Your task to perform on an android device: see tabs open on other devices in the chrome app Image 0: 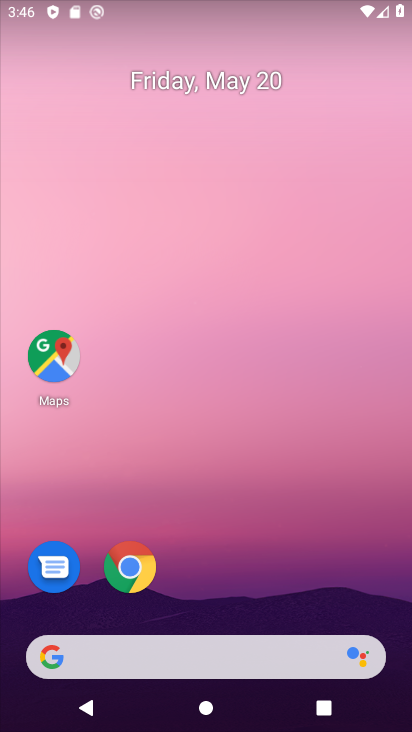
Step 0: click (131, 571)
Your task to perform on an android device: see tabs open on other devices in the chrome app Image 1: 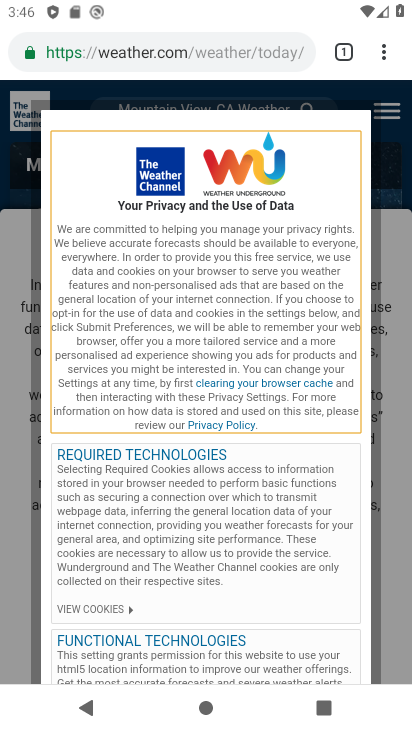
Step 1: click (396, 53)
Your task to perform on an android device: see tabs open on other devices in the chrome app Image 2: 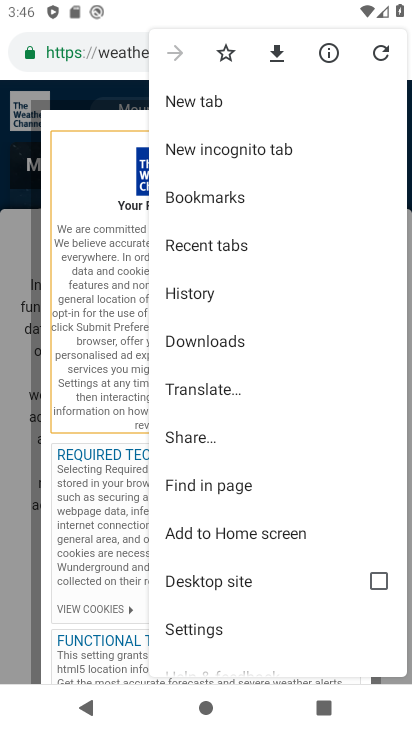
Step 2: click (251, 254)
Your task to perform on an android device: see tabs open on other devices in the chrome app Image 3: 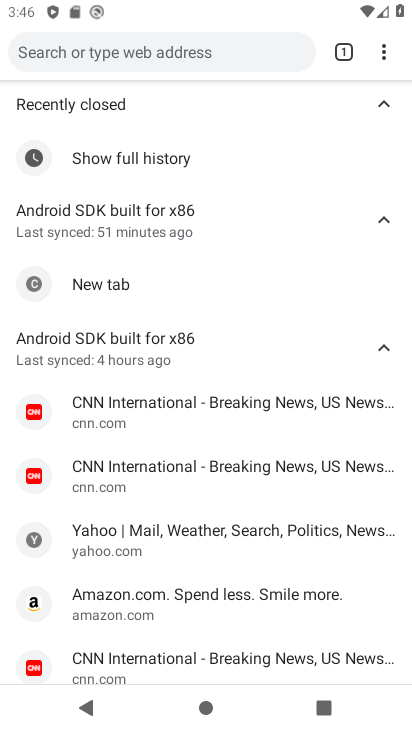
Step 3: task complete